Your task to perform on an android device: check android version Image 0: 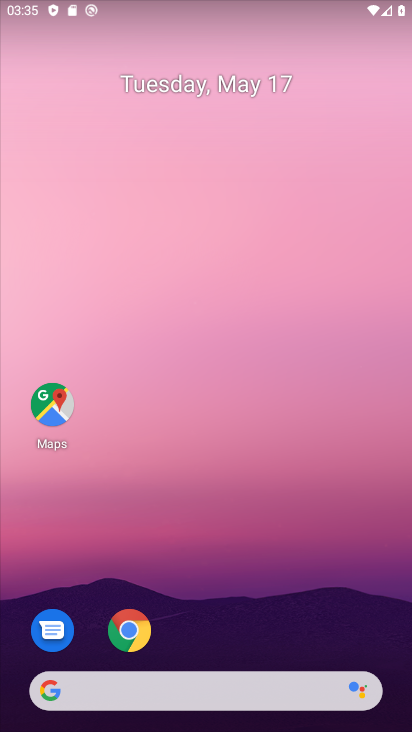
Step 0: drag from (207, 661) to (371, 105)
Your task to perform on an android device: check android version Image 1: 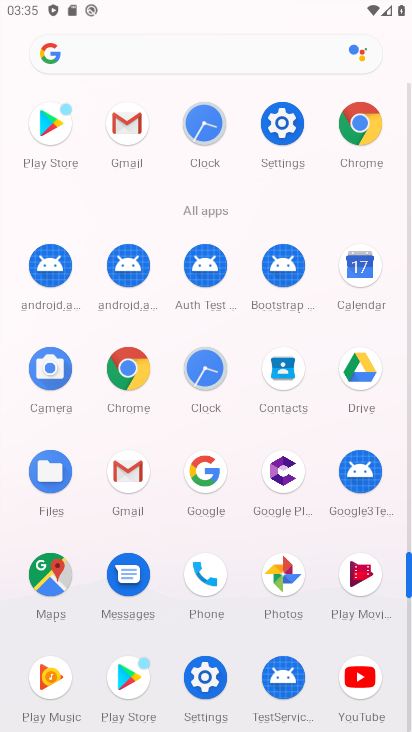
Step 1: drag from (193, 630) to (256, 364)
Your task to perform on an android device: check android version Image 2: 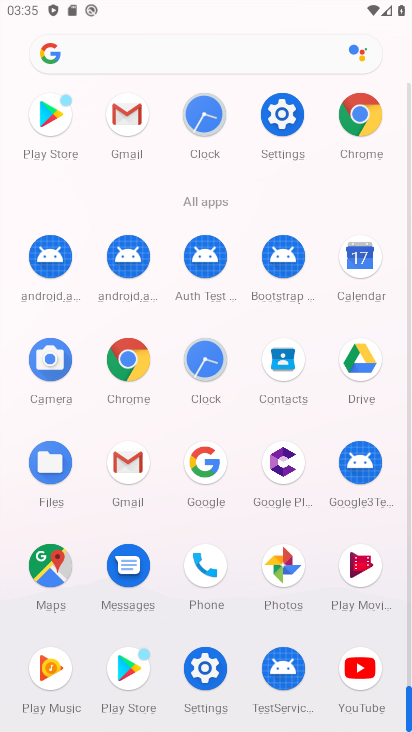
Step 2: click (210, 679)
Your task to perform on an android device: check android version Image 3: 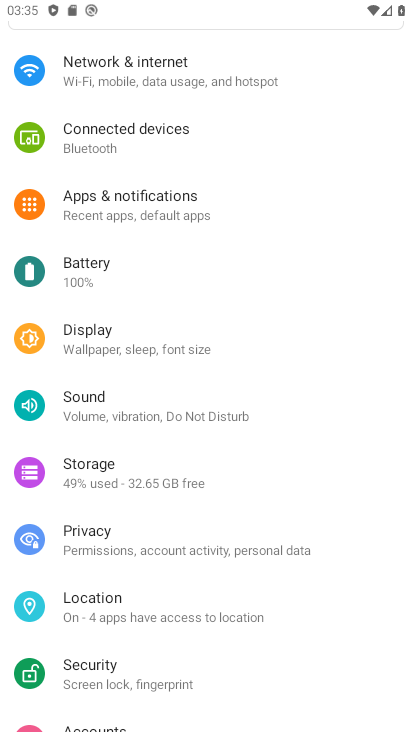
Step 3: drag from (155, 609) to (293, 122)
Your task to perform on an android device: check android version Image 4: 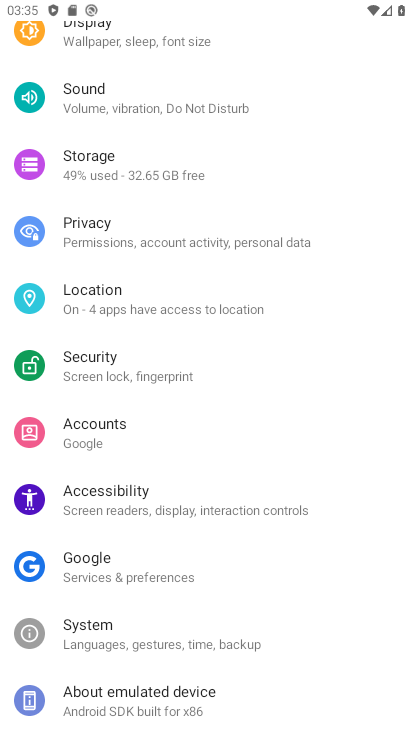
Step 4: click (183, 700)
Your task to perform on an android device: check android version Image 5: 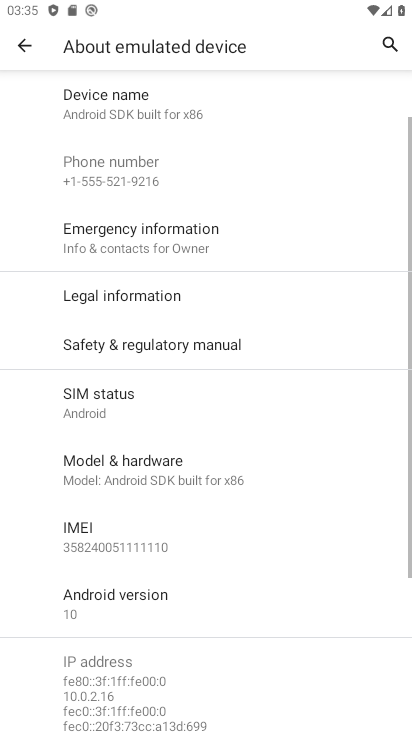
Step 5: drag from (120, 561) to (252, 252)
Your task to perform on an android device: check android version Image 6: 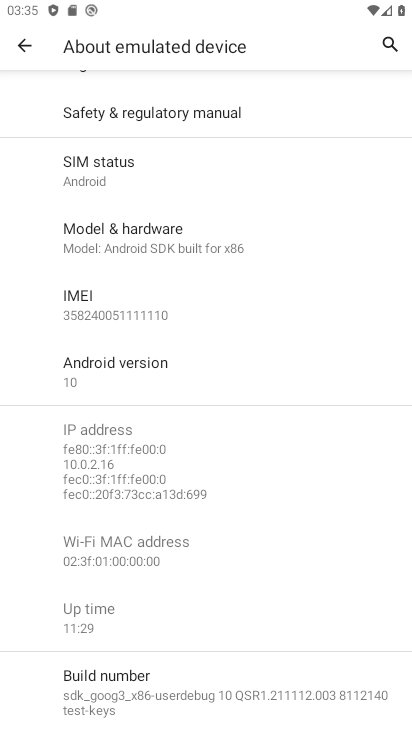
Step 6: click (190, 369)
Your task to perform on an android device: check android version Image 7: 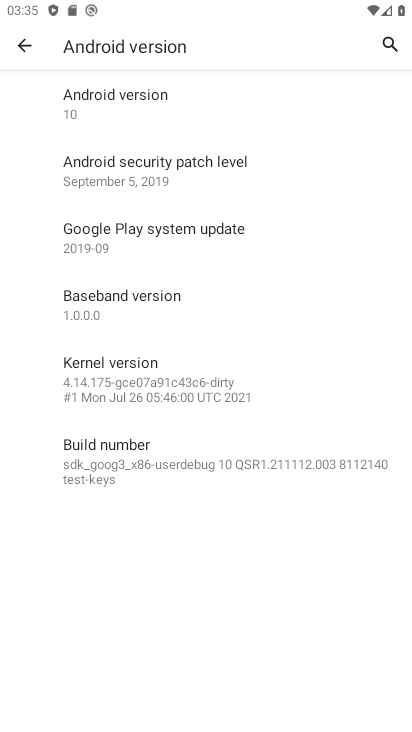
Step 7: task complete